Your task to perform on an android device: What's the weather? Image 0: 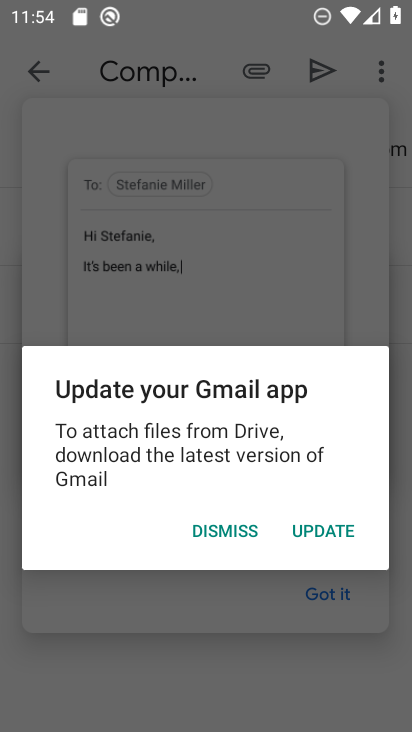
Step 0: click (332, 598)
Your task to perform on an android device: What's the weather? Image 1: 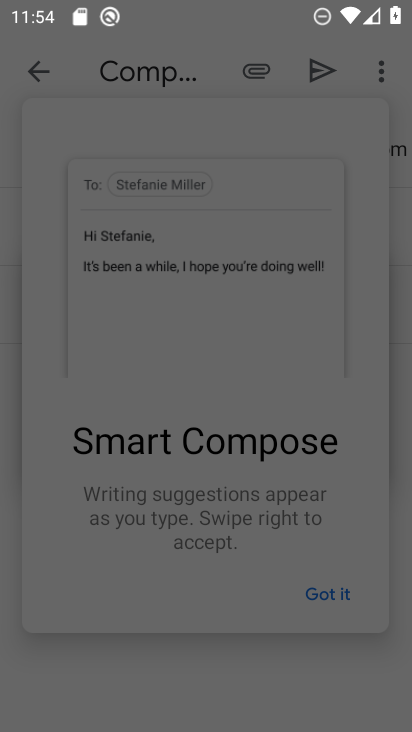
Step 1: press home button
Your task to perform on an android device: What's the weather? Image 2: 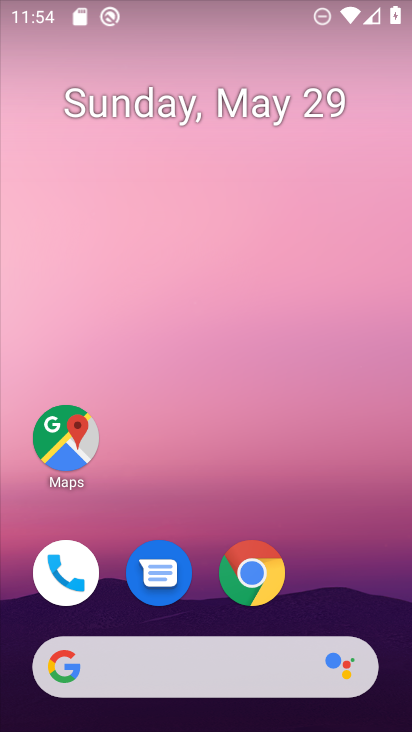
Step 2: drag from (337, 571) to (338, 243)
Your task to perform on an android device: What's the weather? Image 3: 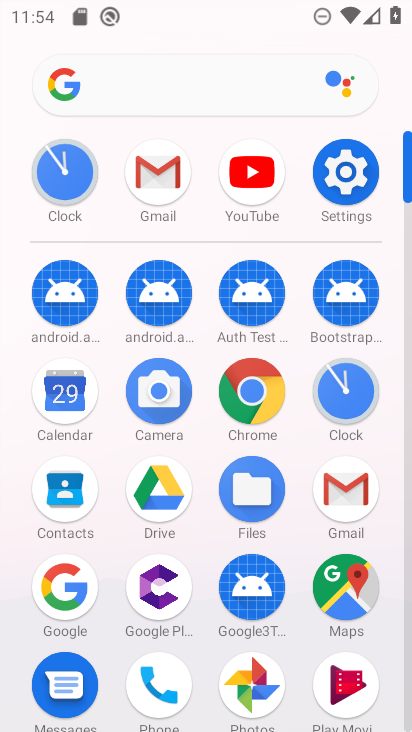
Step 3: click (59, 593)
Your task to perform on an android device: What's the weather? Image 4: 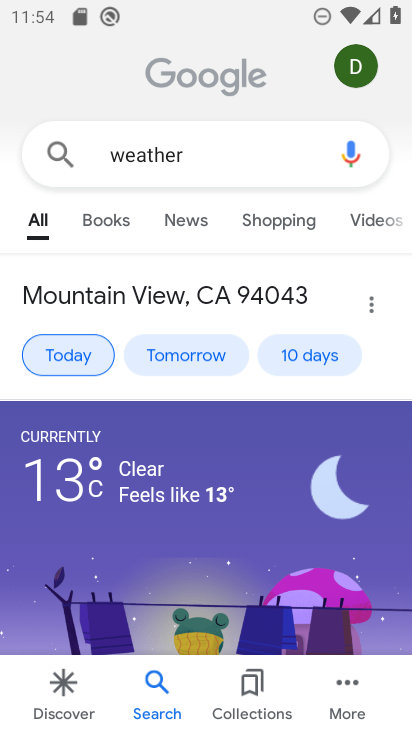
Step 4: task complete